Your task to perform on an android device: turn on translation in the chrome app Image 0: 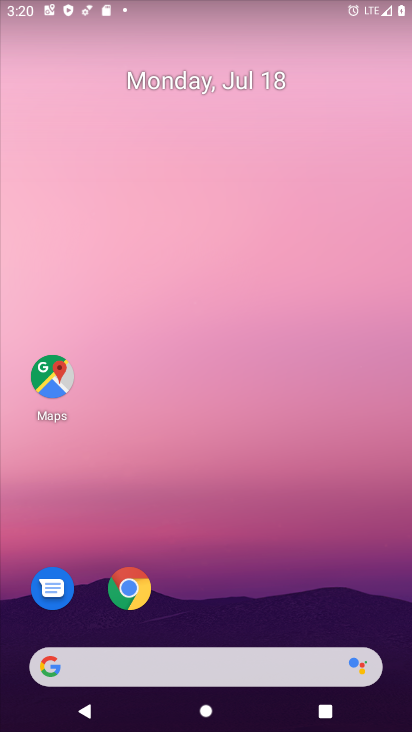
Step 0: click (126, 590)
Your task to perform on an android device: turn on translation in the chrome app Image 1: 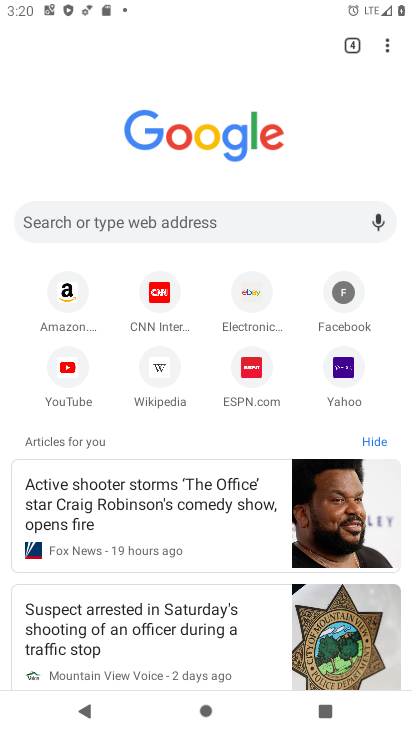
Step 1: drag from (386, 41) to (255, 378)
Your task to perform on an android device: turn on translation in the chrome app Image 2: 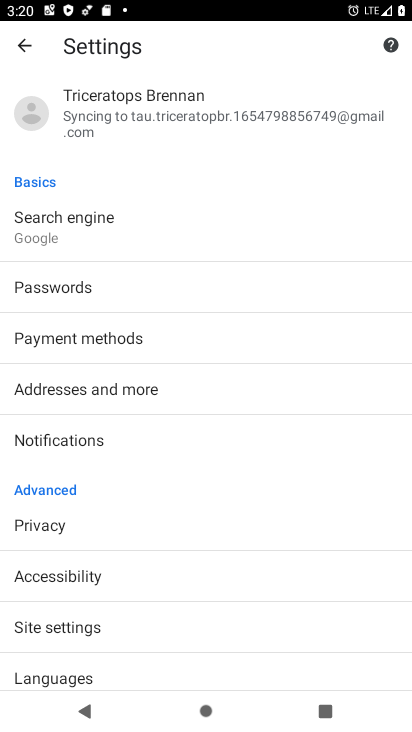
Step 2: drag from (122, 654) to (200, 313)
Your task to perform on an android device: turn on translation in the chrome app Image 3: 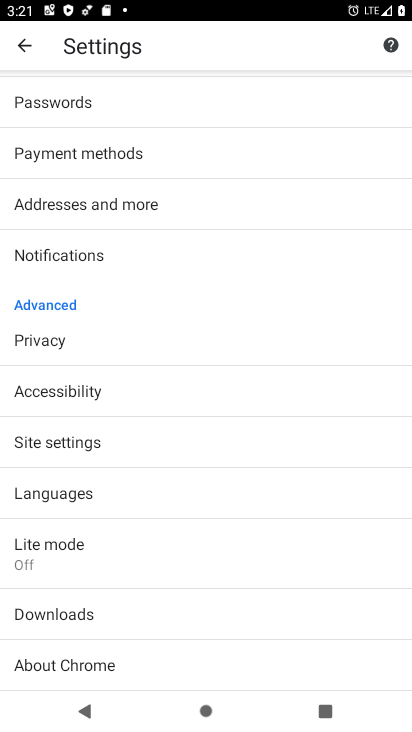
Step 3: click (57, 500)
Your task to perform on an android device: turn on translation in the chrome app Image 4: 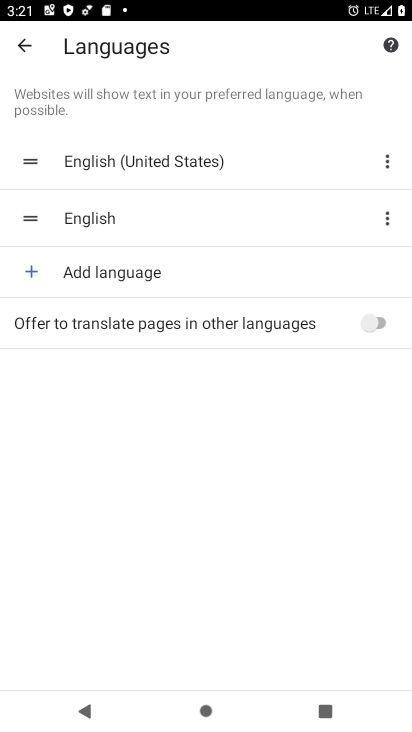
Step 4: click (380, 325)
Your task to perform on an android device: turn on translation in the chrome app Image 5: 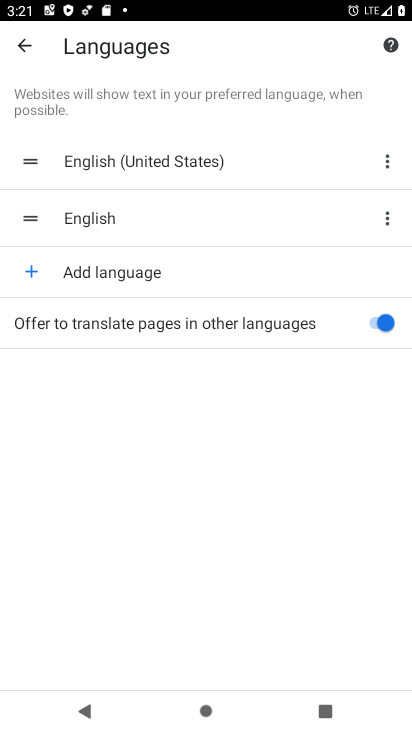
Step 5: task complete